Your task to perform on an android device: empty trash in the gmail app Image 0: 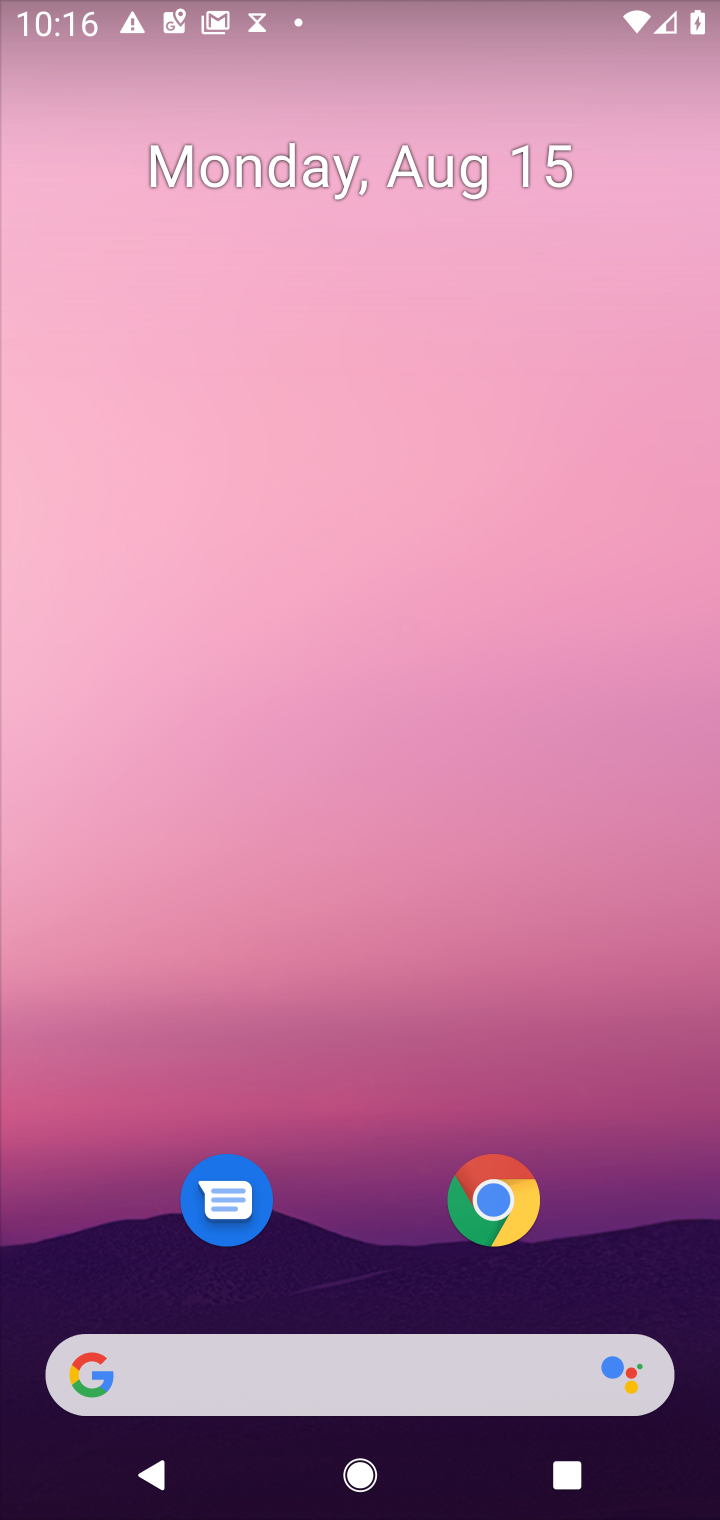
Step 0: drag from (371, 1219) to (426, 198)
Your task to perform on an android device: empty trash in the gmail app Image 1: 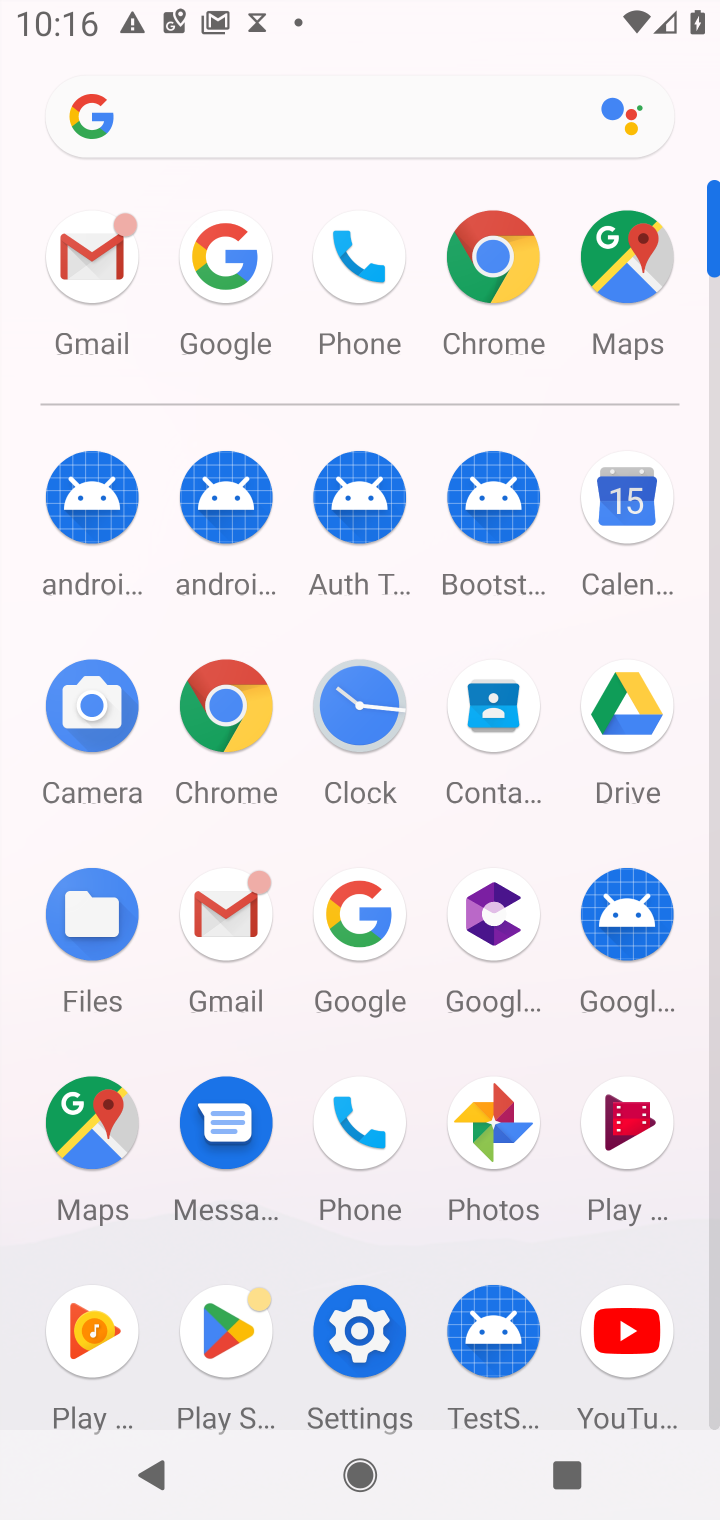
Step 1: click (105, 270)
Your task to perform on an android device: empty trash in the gmail app Image 2: 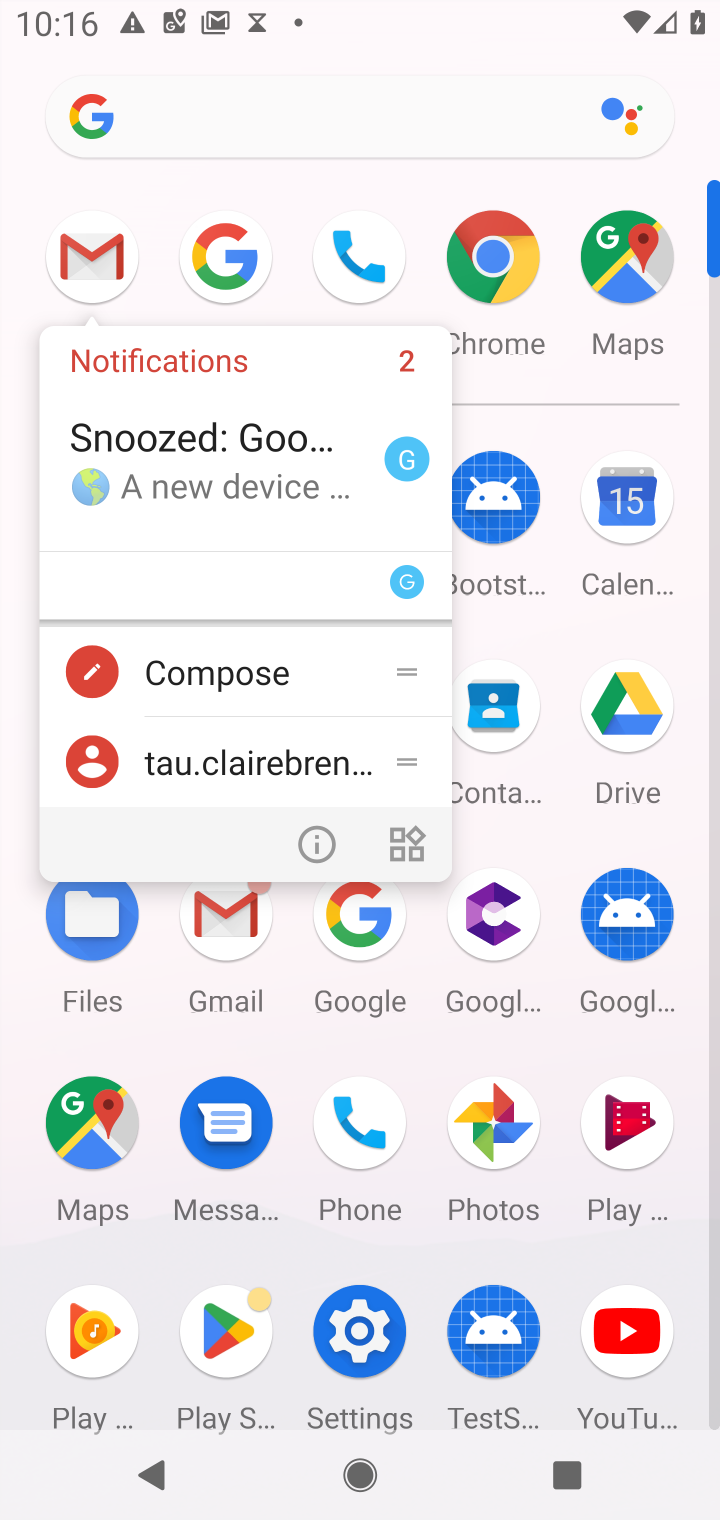
Step 2: click (105, 270)
Your task to perform on an android device: empty trash in the gmail app Image 3: 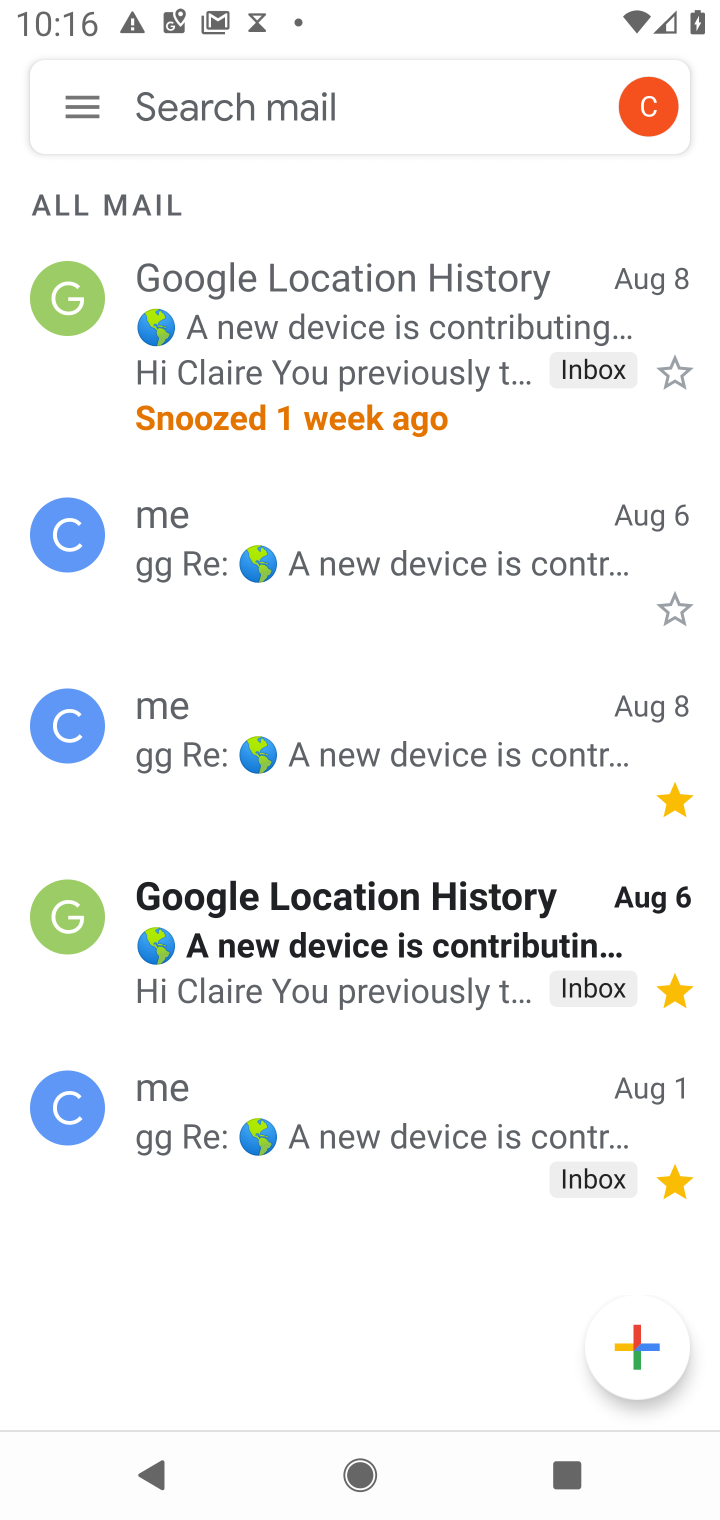
Step 3: click (89, 103)
Your task to perform on an android device: empty trash in the gmail app Image 4: 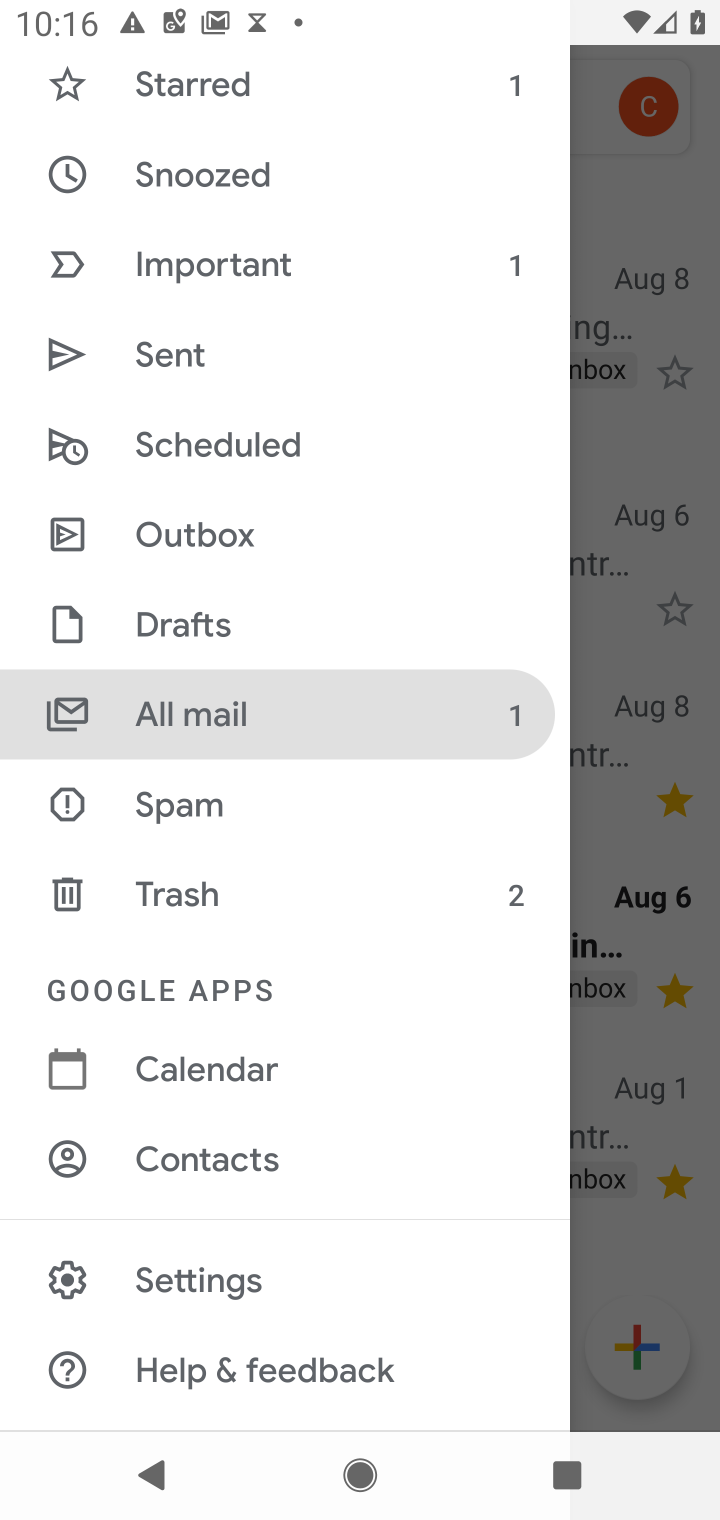
Step 4: click (226, 901)
Your task to perform on an android device: empty trash in the gmail app Image 5: 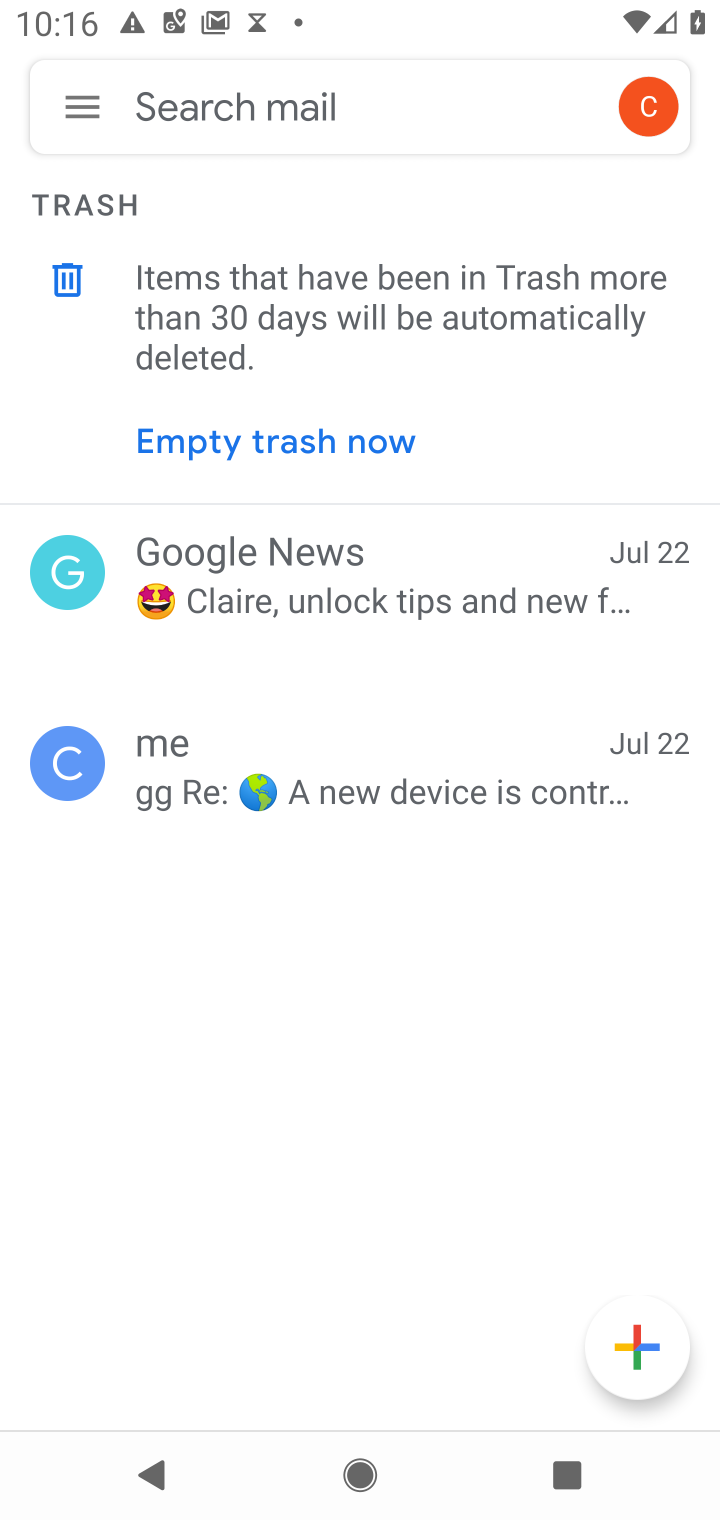
Step 5: click (261, 450)
Your task to perform on an android device: empty trash in the gmail app Image 6: 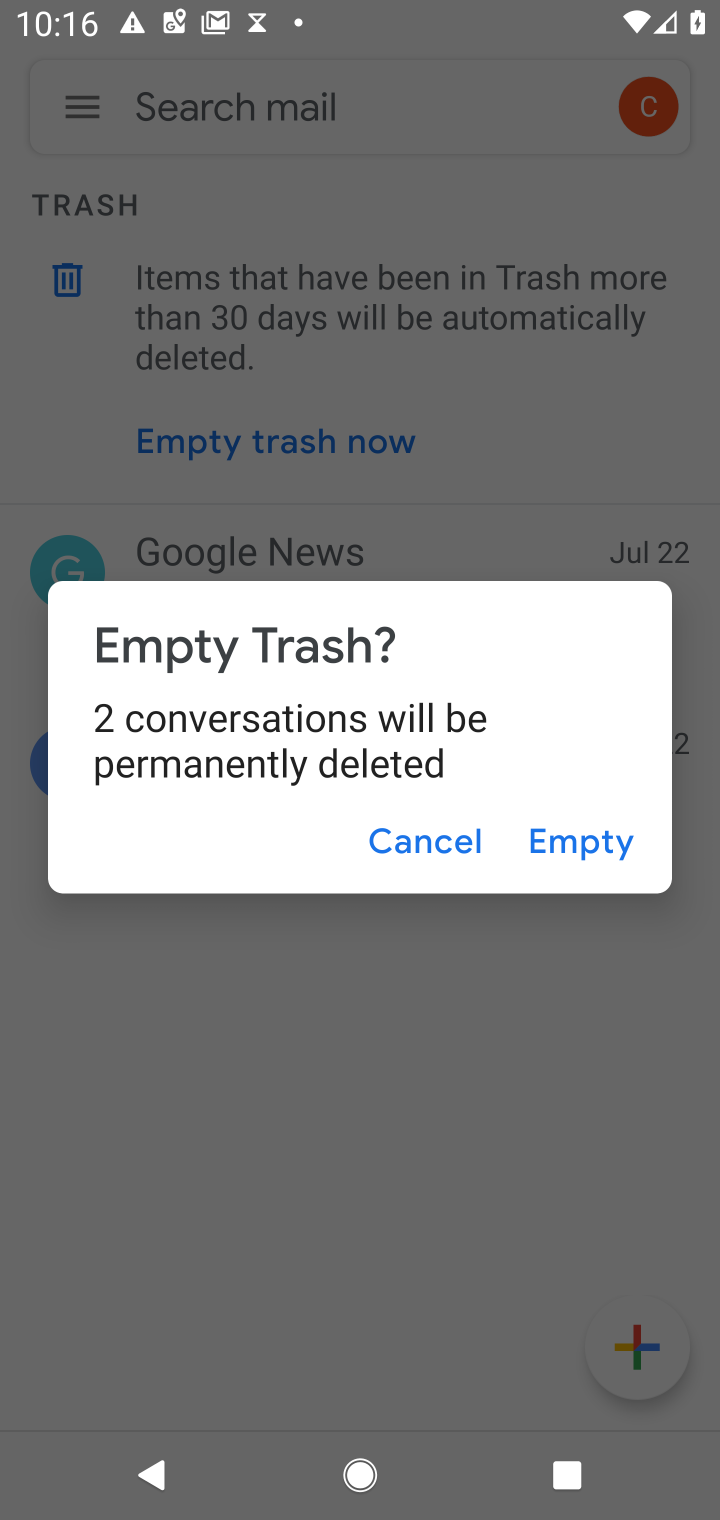
Step 6: click (577, 838)
Your task to perform on an android device: empty trash in the gmail app Image 7: 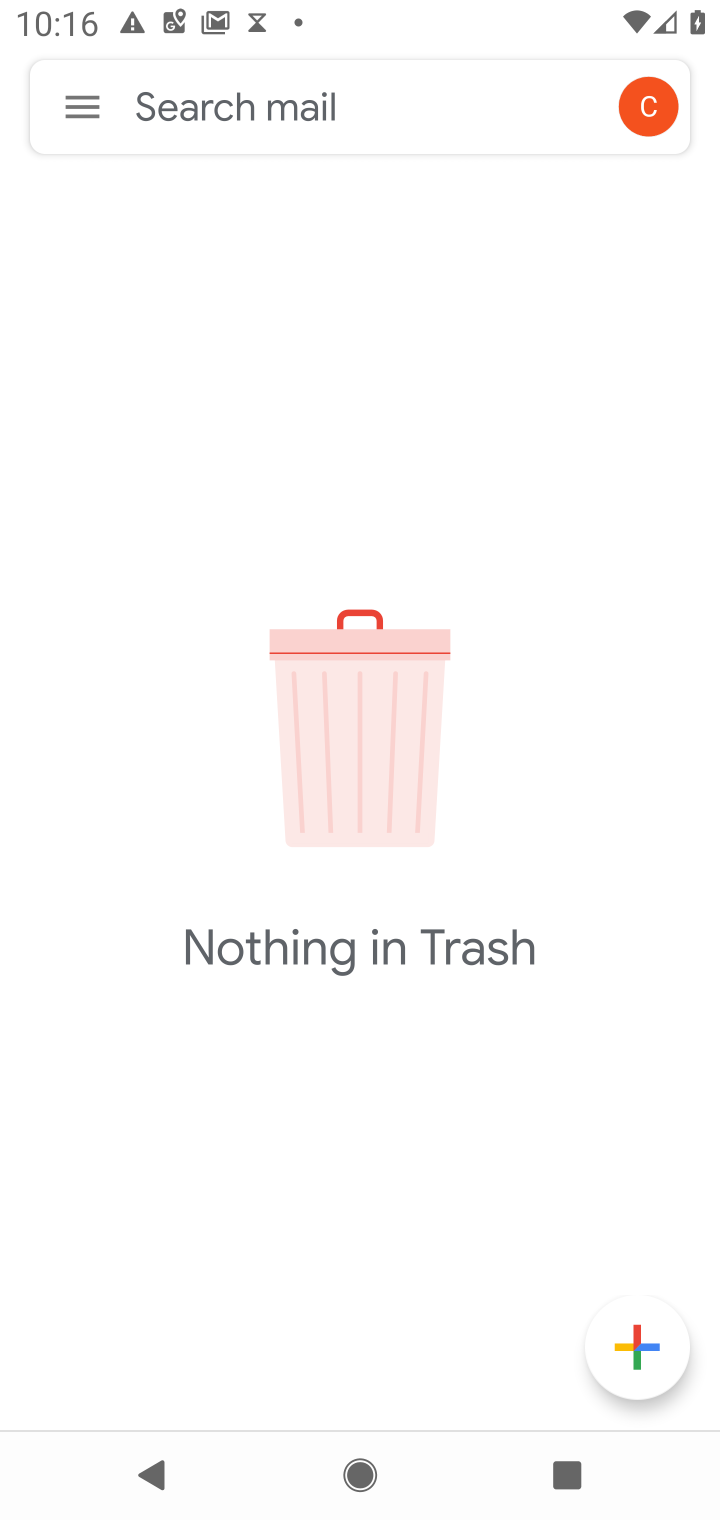
Step 7: task complete